Your task to perform on an android device: Show me popular games on the Play Store Image 0: 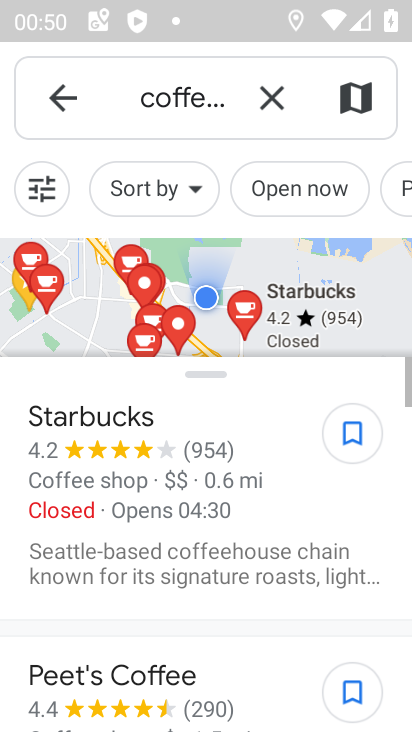
Step 0: press home button
Your task to perform on an android device: Show me popular games on the Play Store Image 1: 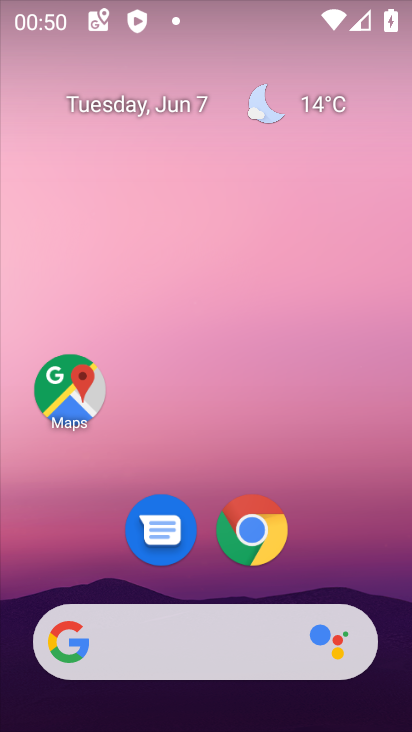
Step 1: drag from (209, 576) to (220, 152)
Your task to perform on an android device: Show me popular games on the Play Store Image 2: 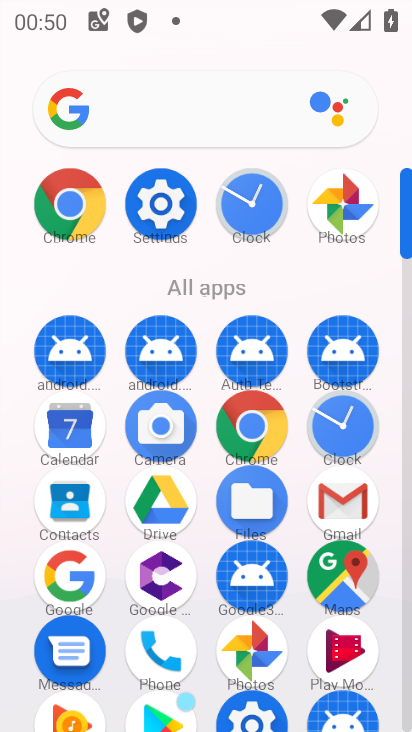
Step 2: drag from (201, 623) to (201, 340)
Your task to perform on an android device: Show me popular games on the Play Store Image 3: 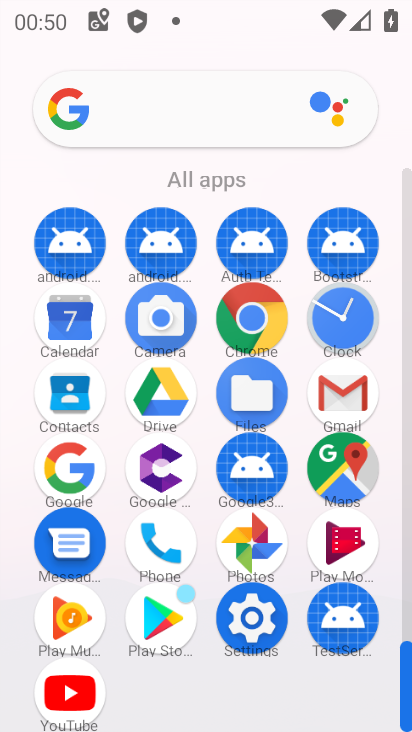
Step 3: click (162, 616)
Your task to perform on an android device: Show me popular games on the Play Store Image 4: 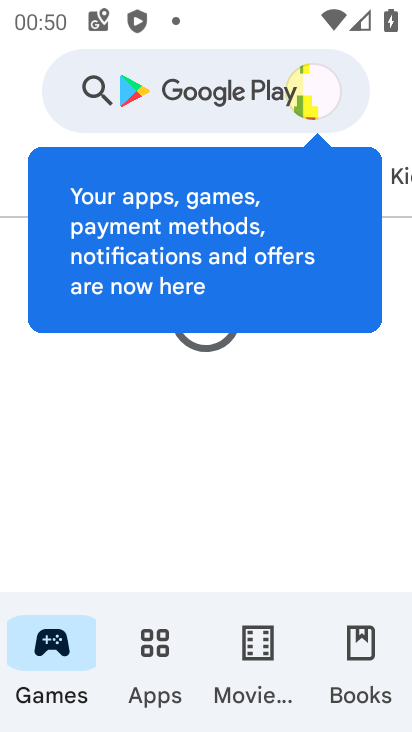
Step 4: click (67, 638)
Your task to perform on an android device: Show me popular games on the Play Store Image 5: 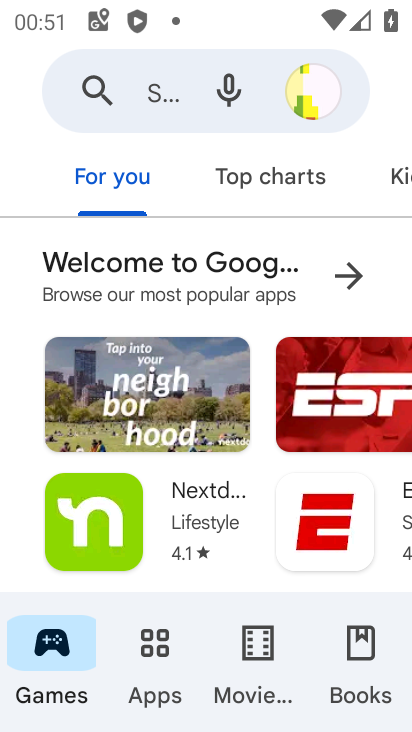
Step 5: task complete